Your task to perform on an android device: empty trash in google photos Image 0: 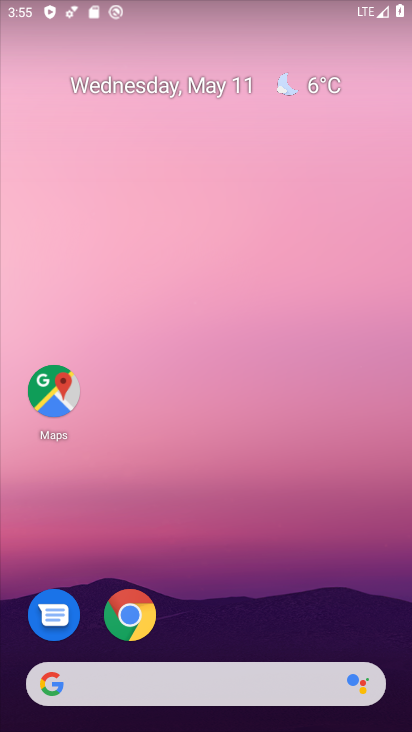
Step 0: drag from (307, 590) to (261, 167)
Your task to perform on an android device: empty trash in google photos Image 1: 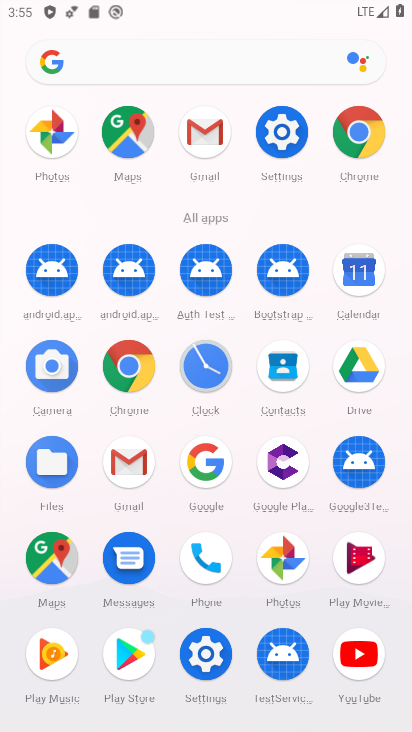
Step 1: click (282, 556)
Your task to perform on an android device: empty trash in google photos Image 2: 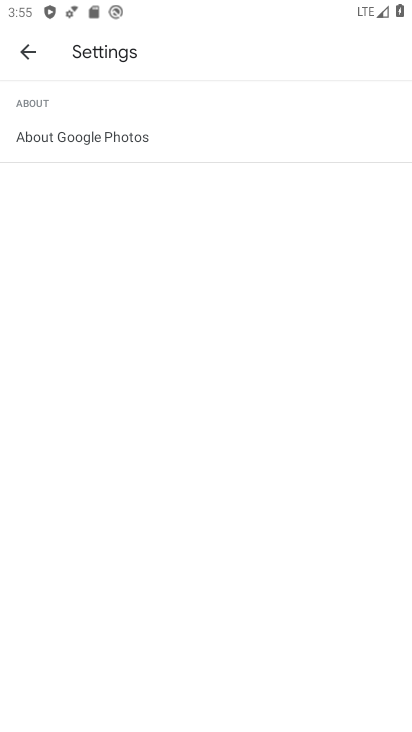
Step 2: click (35, 52)
Your task to perform on an android device: empty trash in google photos Image 3: 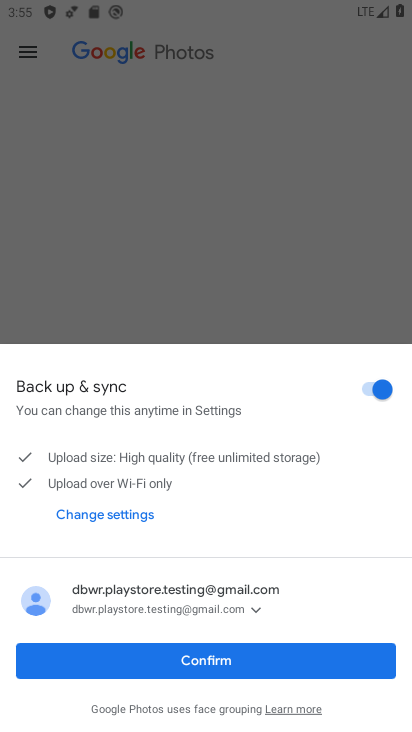
Step 3: click (31, 57)
Your task to perform on an android device: empty trash in google photos Image 4: 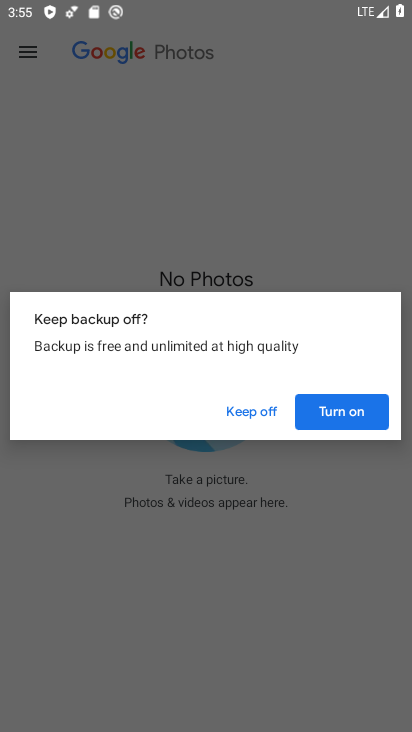
Step 4: click (339, 411)
Your task to perform on an android device: empty trash in google photos Image 5: 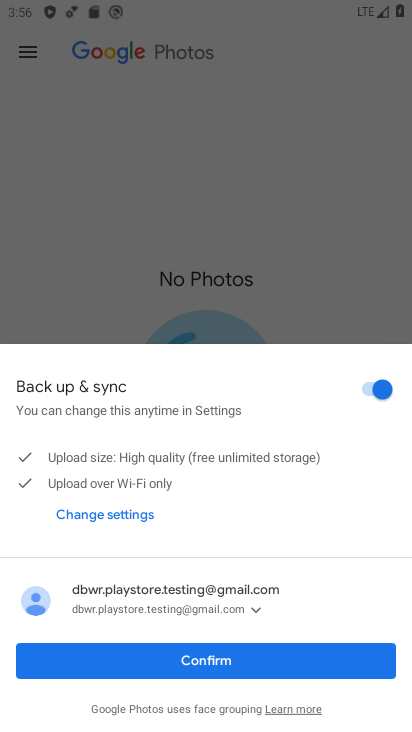
Step 5: click (207, 657)
Your task to perform on an android device: empty trash in google photos Image 6: 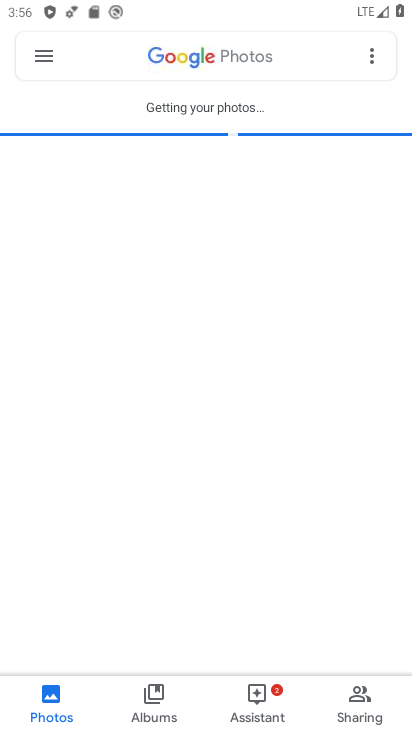
Step 6: click (27, 48)
Your task to perform on an android device: empty trash in google photos Image 7: 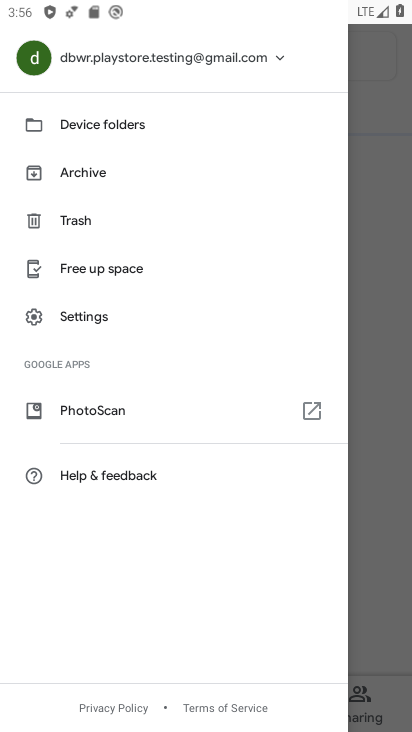
Step 7: click (77, 227)
Your task to perform on an android device: empty trash in google photos Image 8: 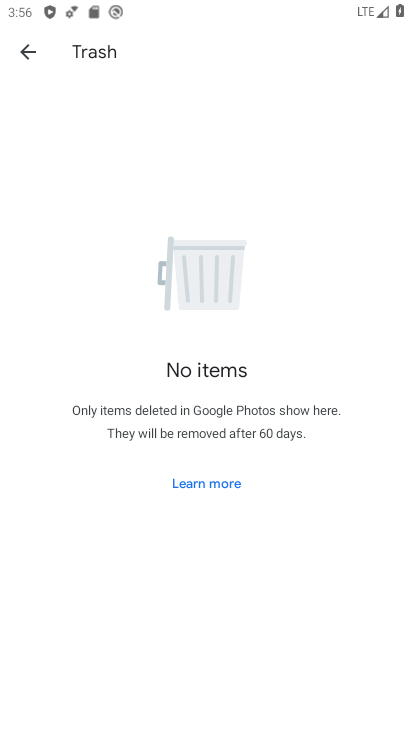
Step 8: task complete